Your task to perform on an android device: Open Google Chrome and click the shortcut for Amazon.com Image 0: 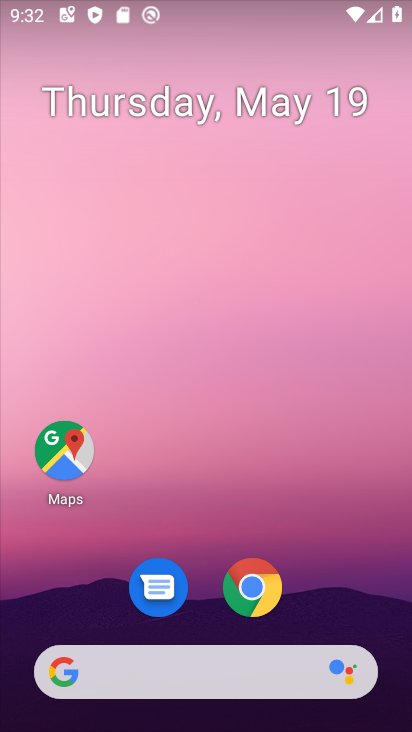
Step 0: click (263, 590)
Your task to perform on an android device: Open Google Chrome and click the shortcut for Amazon.com Image 1: 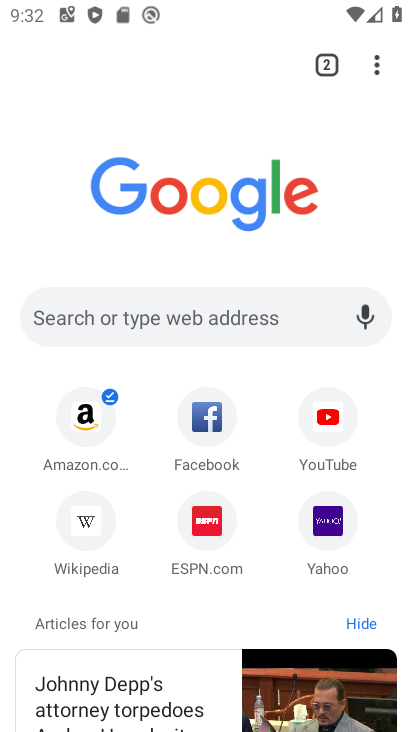
Step 1: click (90, 406)
Your task to perform on an android device: Open Google Chrome and click the shortcut for Amazon.com Image 2: 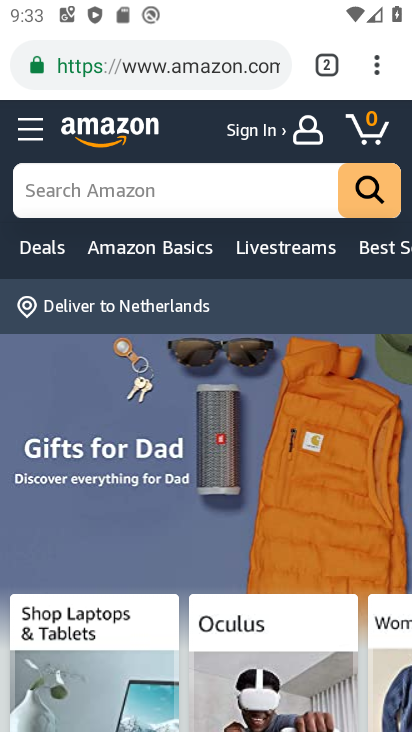
Step 2: task complete